Your task to perform on an android device: turn off translation in the chrome app Image 0: 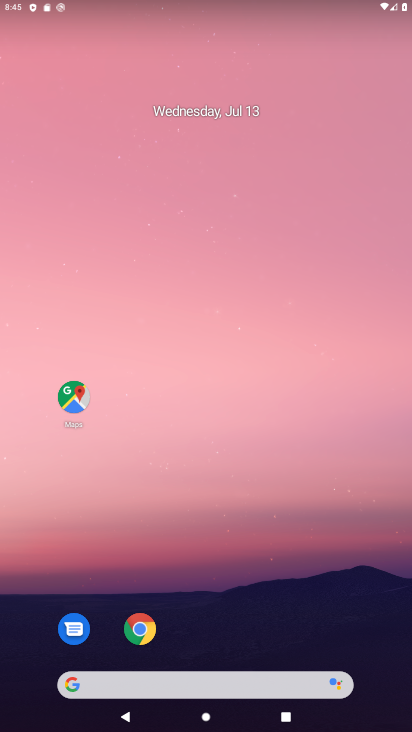
Step 0: drag from (200, 634) to (279, 18)
Your task to perform on an android device: turn off translation in the chrome app Image 1: 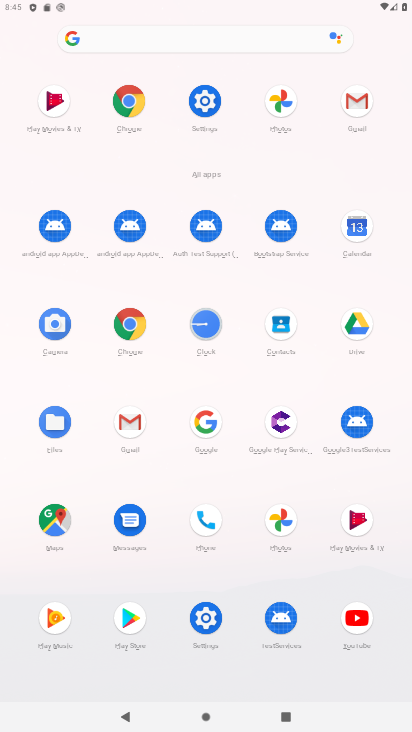
Step 1: click (134, 321)
Your task to perform on an android device: turn off translation in the chrome app Image 2: 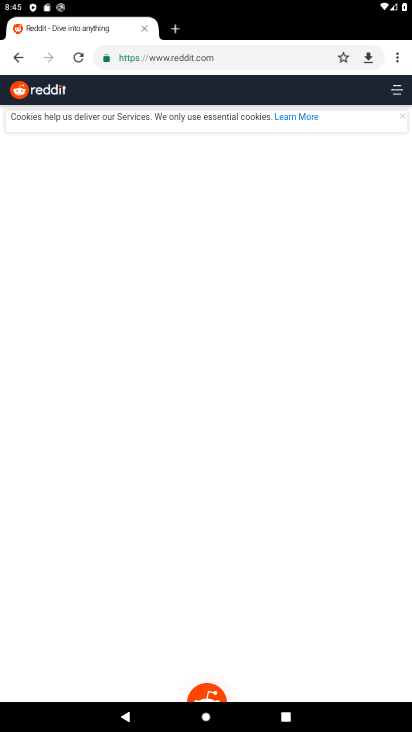
Step 2: drag from (398, 58) to (274, 389)
Your task to perform on an android device: turn off translation in the chrome app Image 3: 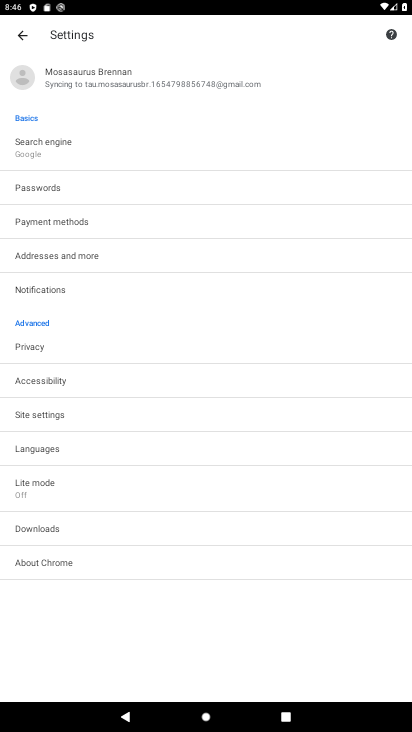
Step 3: click (33, 452)
Your task to perform on an android device: turn off translation in the chrome app Image 4: 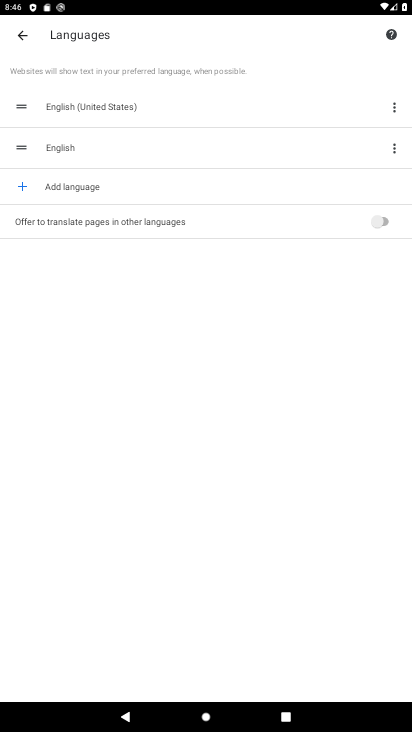
Step 4: task complete